Your task to perform on an android device: Open settings Image 0: 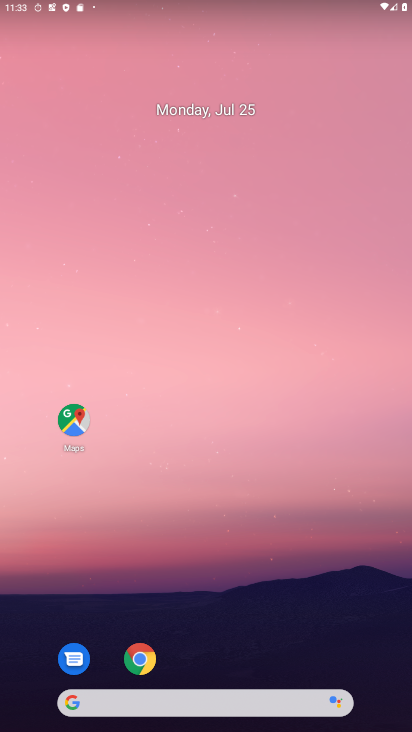
Step 0: drag from (21, 682) to (225, 158)
Your task to perform on an android device: Open settings Image 1: 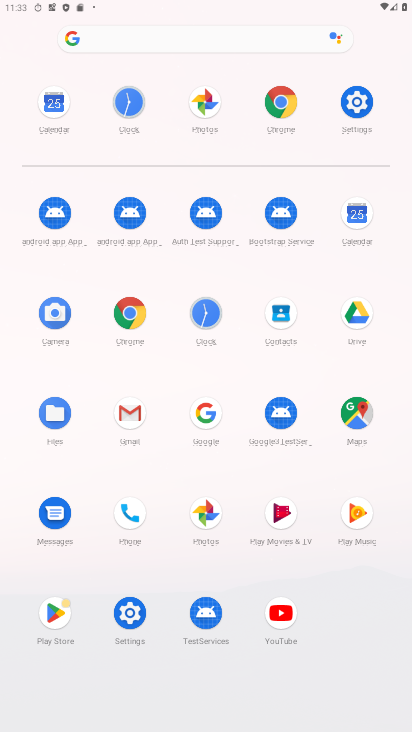
Step 1: click (128, 610)
Your task to perform on an android device: Open settings Image 2: 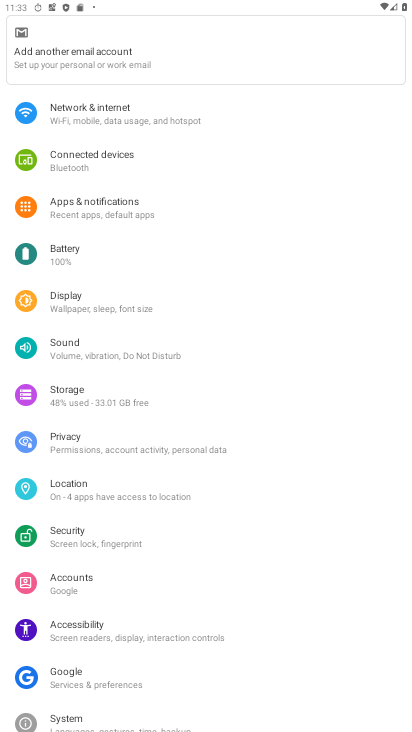
Step 2: task complete